Your task to perform on an android device: Open the stopwatch Image 0: 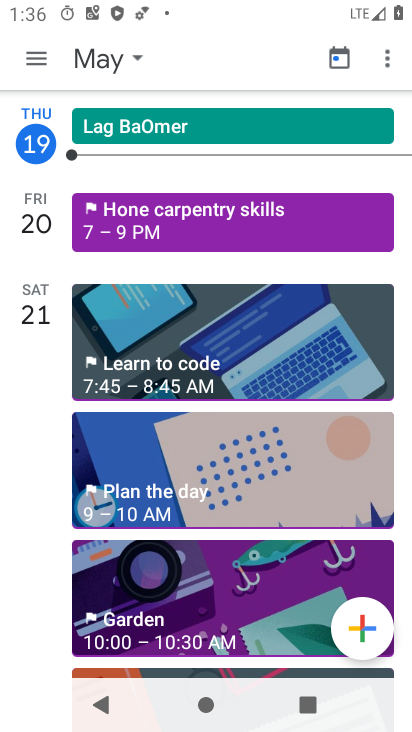
Step 0: press home button
Your task to perform on an android device: Open the stopwatch Image 1: 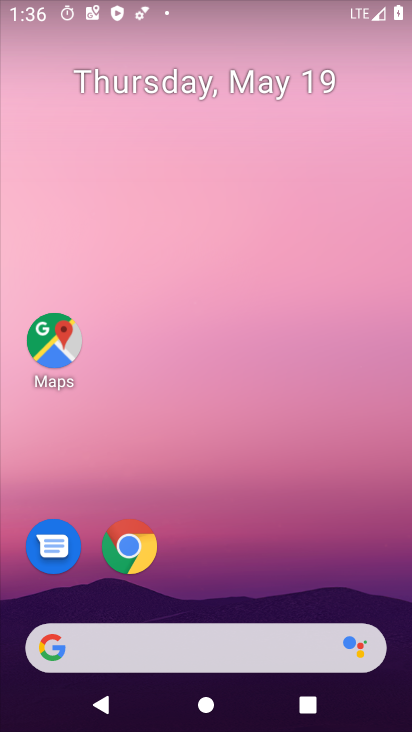
Step 1: drag from (307, 620) to (182, 25)
Your task to perform on an android device: Open the stopwatch Image 2: 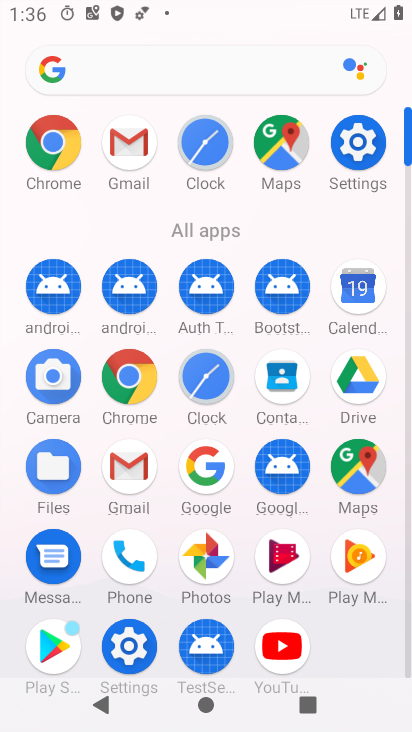
Step 2: click (197, 369)
Your task to perform on an android device: Open the stopwatch Image 3: 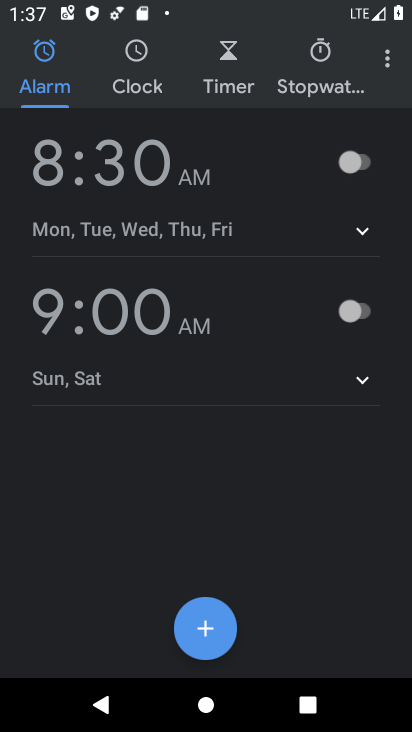
Step 3: click (292, 80)
Your task to perform on an android device: Open the stopwatch Image 4: 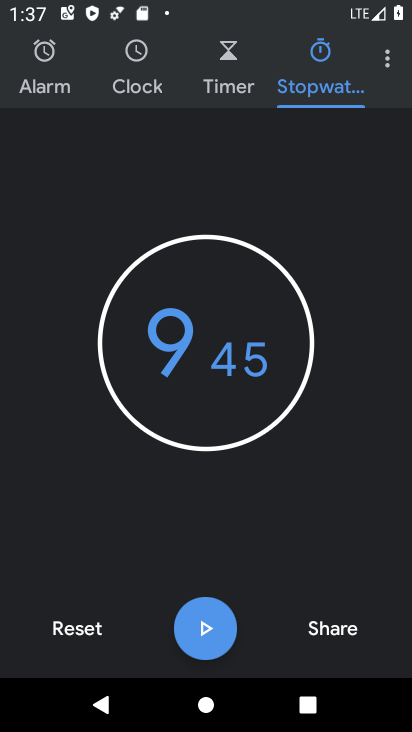
Step 4: task complete